Your task to perform on an android device: Open calendar and show me the third week of next month Image 0: 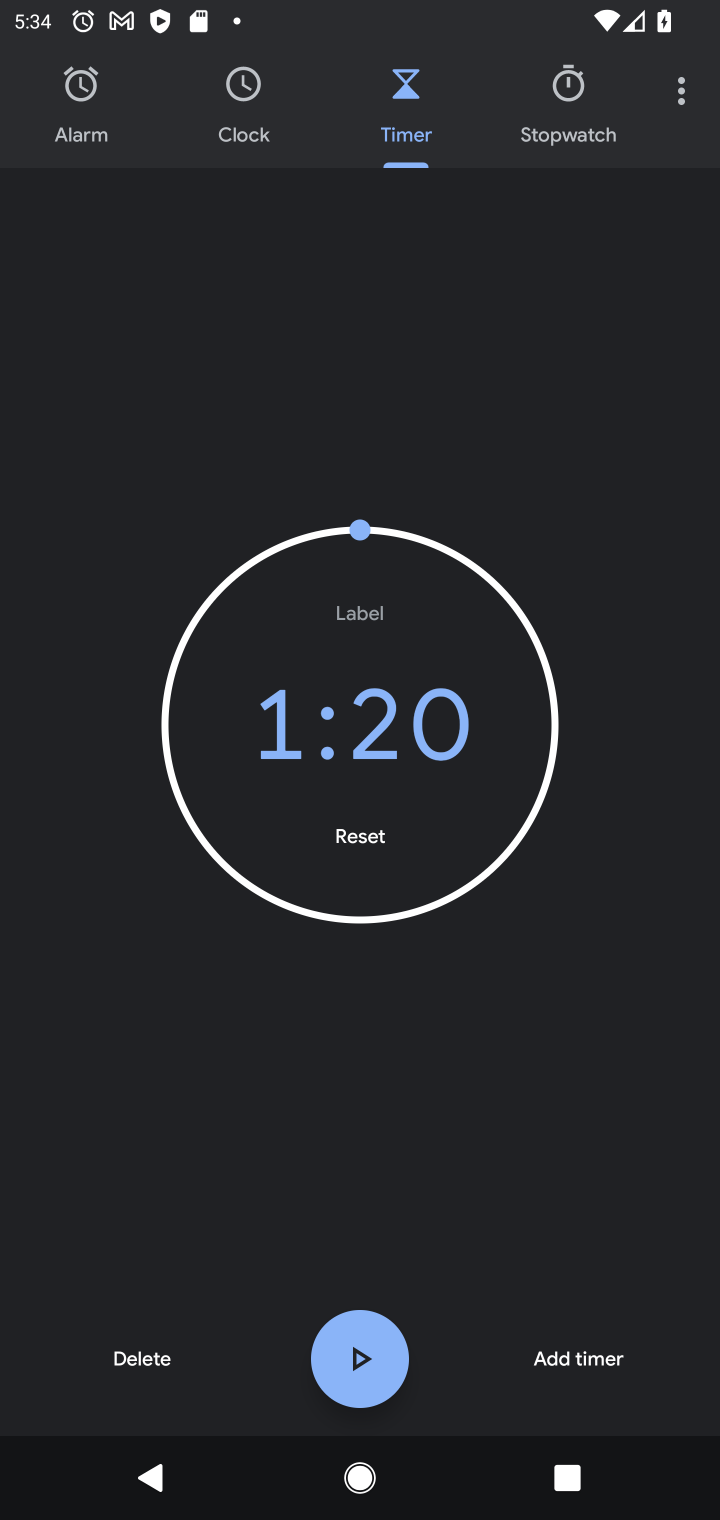
Step 0: press home button
Your task to perform on an android device: Open calendar and show me the third week of next month Image 1: 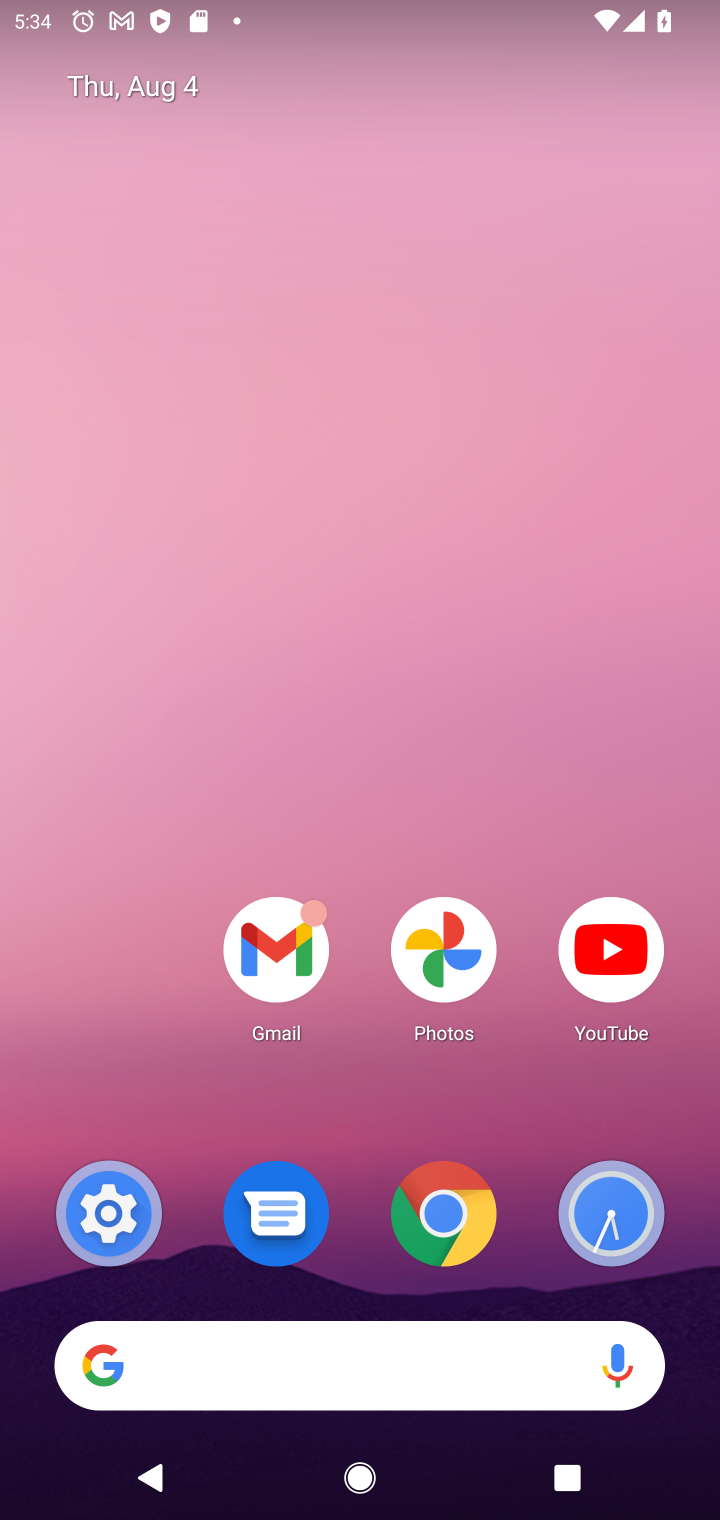
Step 1: drag from (172, 978) to (243, 22)
Your task to perform on an android device: Open calendar and show me the third week of next month Image 2: 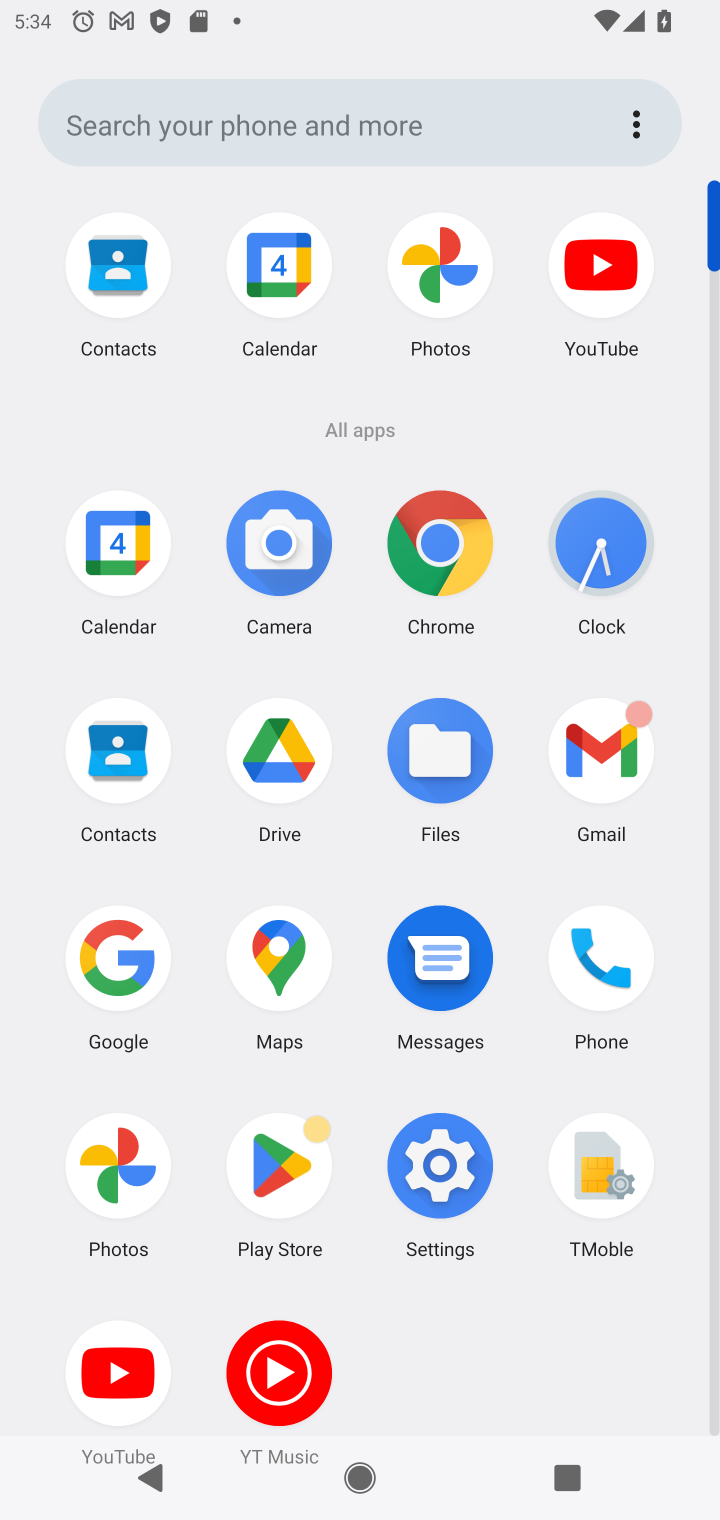
Step 2: click (94, 564)
Your task to perform on an android device: Open calendar and show me the third week of next month Image 3: 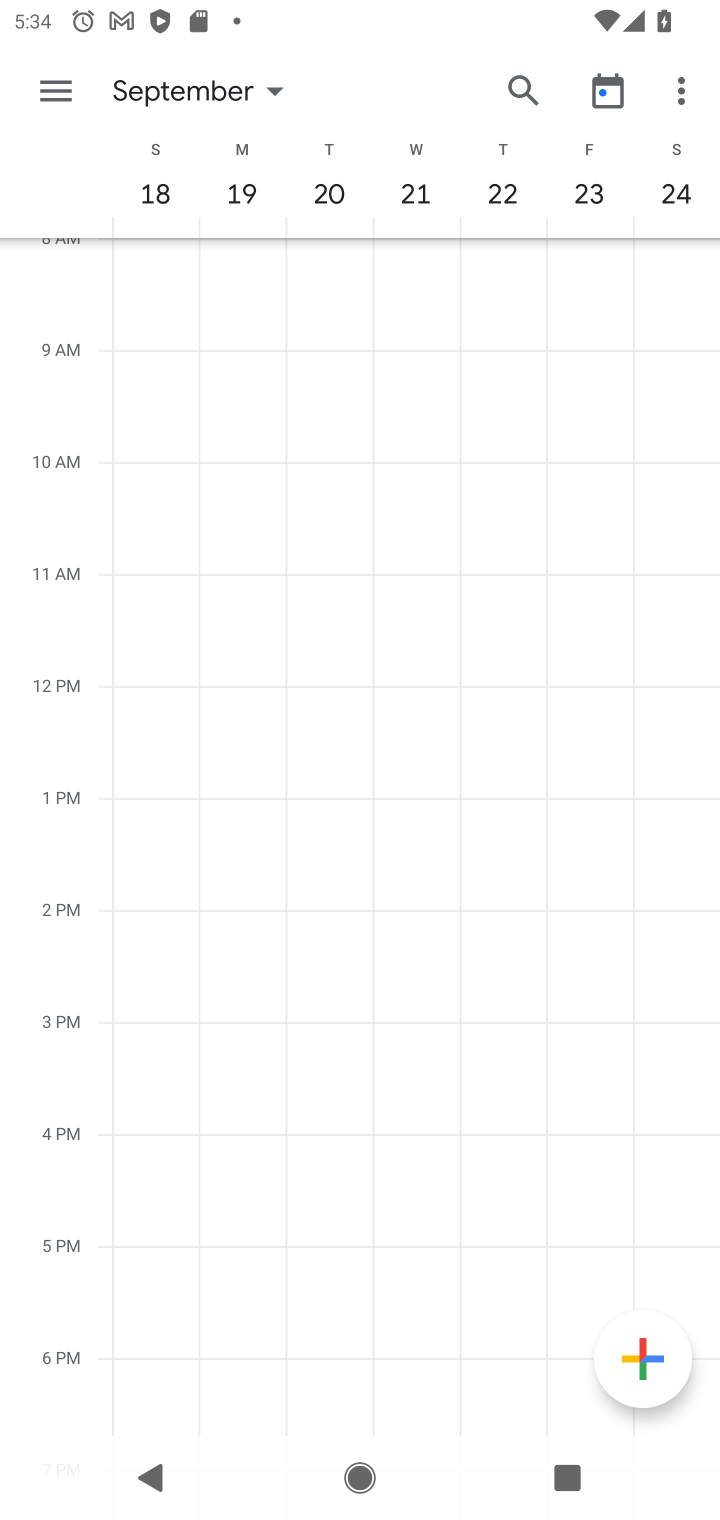
Step 3: task complete